Your task to perform on an android device: turn on showing notifications on the lock screen Image 0: 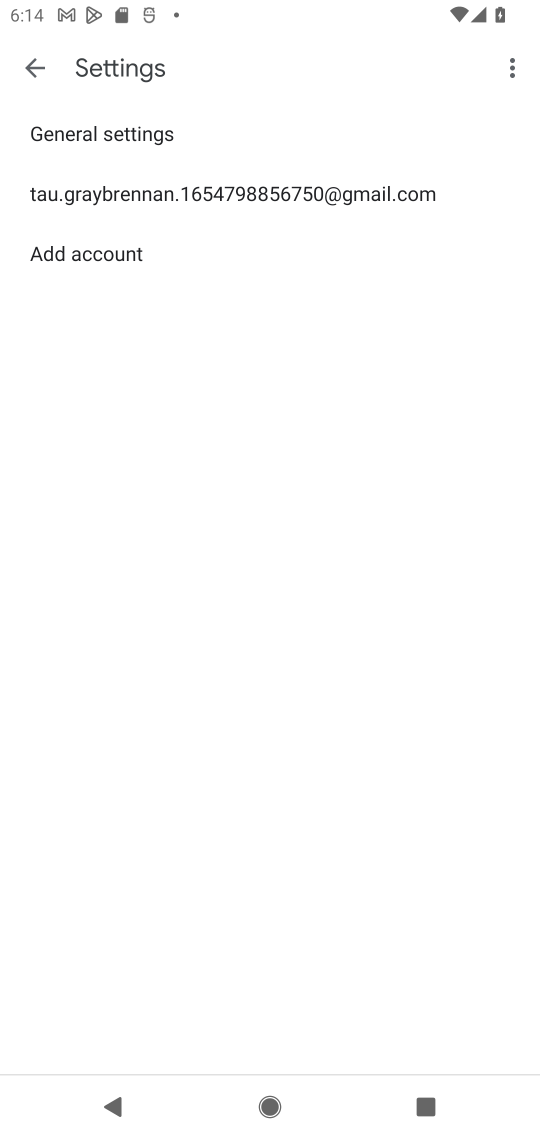
Step 0: press home button
Your task to perform on an android device: turn on showing notifications on the lock screen Image 1: 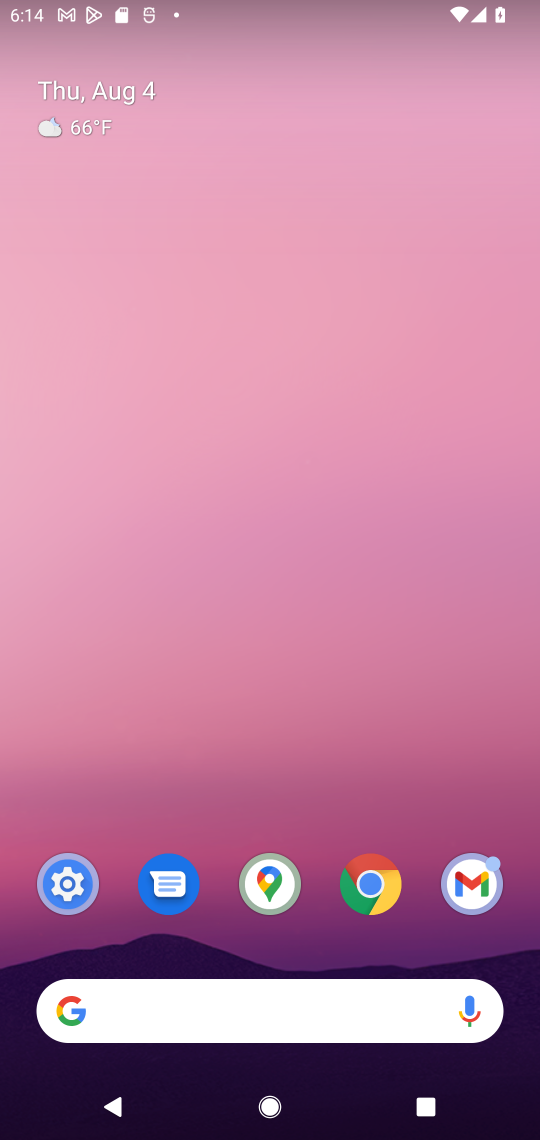
Step 1: click (57, 889)
Your task to perform on an android device: turn on showing notifications on the lock screen Image 2: 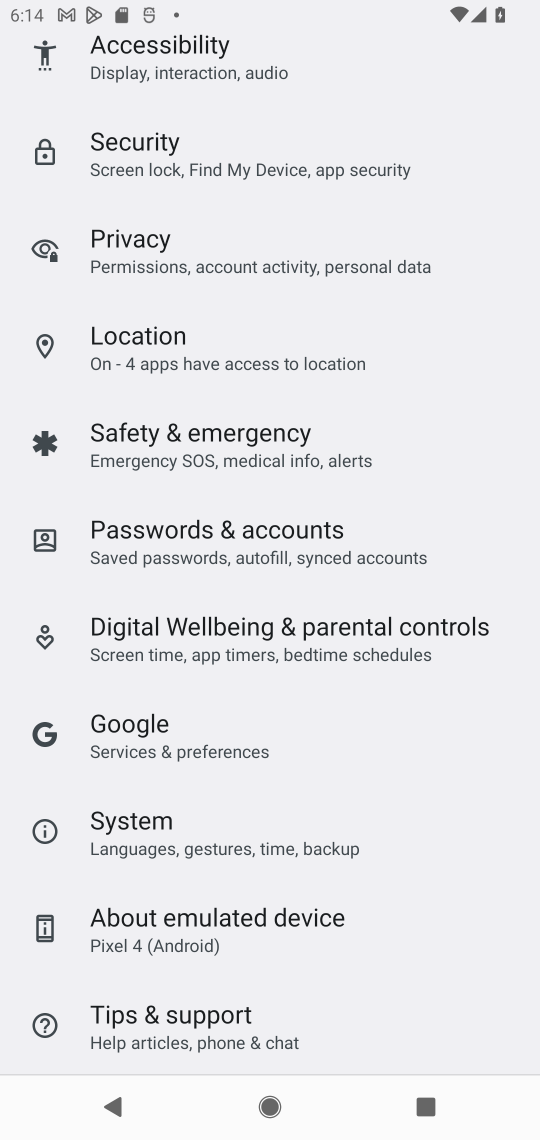
Step 2: drag from (236, 431) to (224, 1066)
Your task to perform on an android device: turn on showing notifications on the lock screen Image 3: 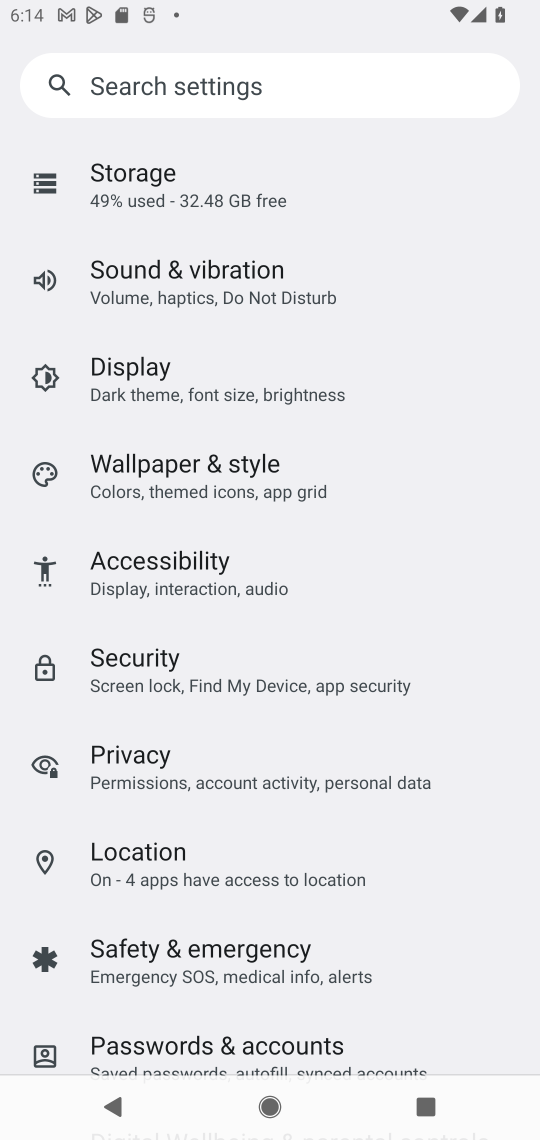
Step 3: drag from (262, 318) to (274, 841)
Your task to perform on an android device: turn on showing notifications on the lock screen Image 4: 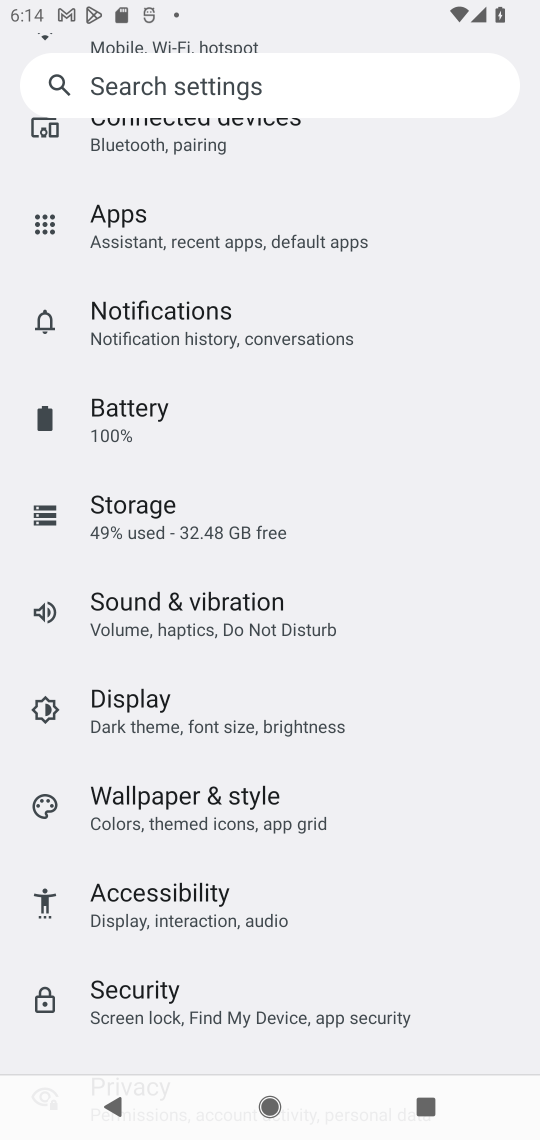
Step 4: click (273, 331)
Your task to perform on an android device: turn on showing notifications on the lock screen Image 5: 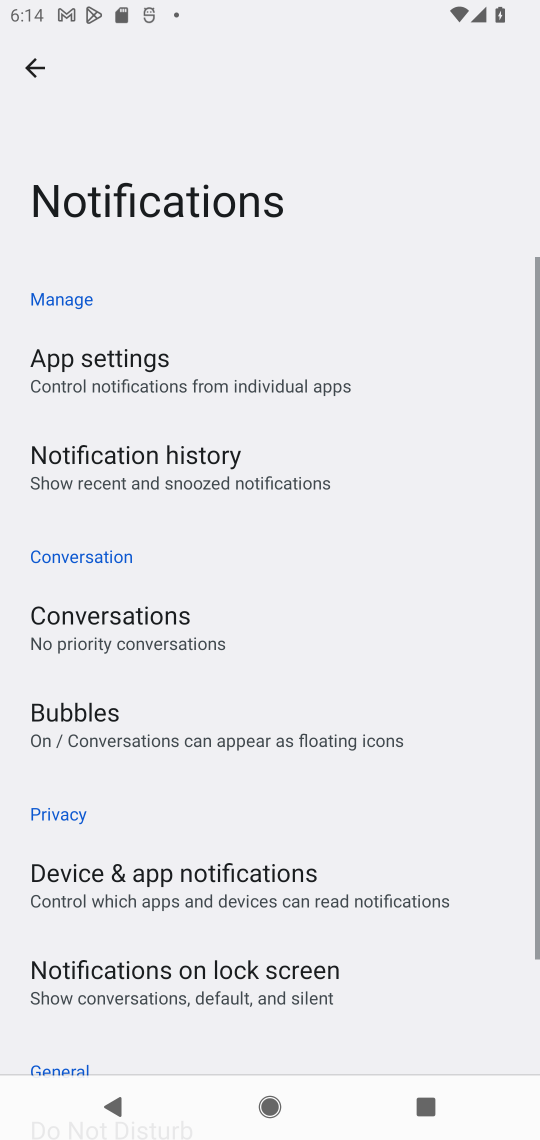
Step 5: task complete